Your task to perform on an android device: open the mobile data screen to see how much data has been used Image 0: 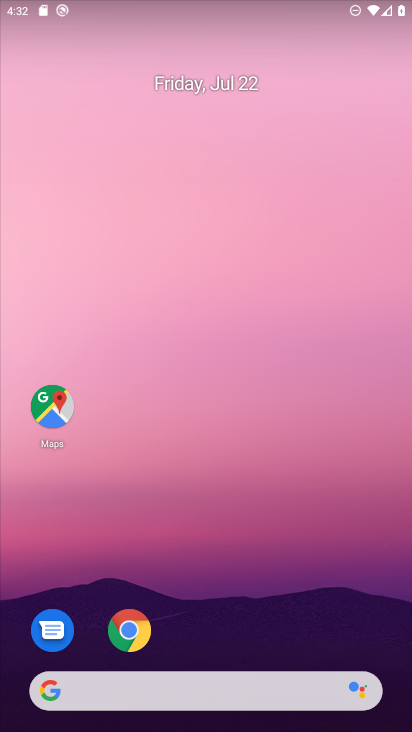
Step 0: drag from (231, 657) to (245, 202)
Your task to perform on an android device: open the mobile data screen to see how much data has been used Image 1: 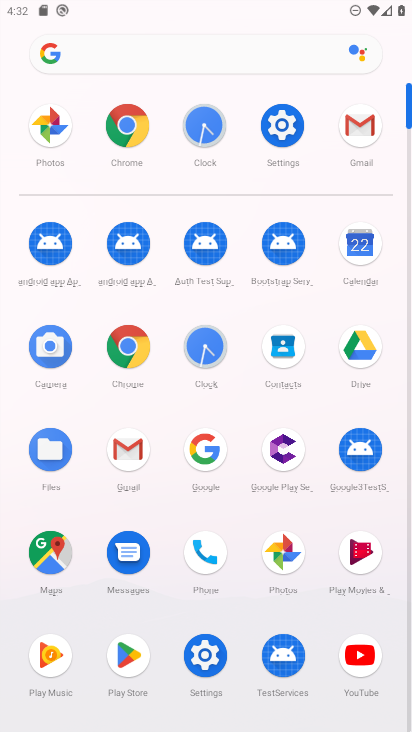
Step 1: click (281, 134)
Your task to perform on an android device: open the mobile data screen to see how much data has been used Image 2: 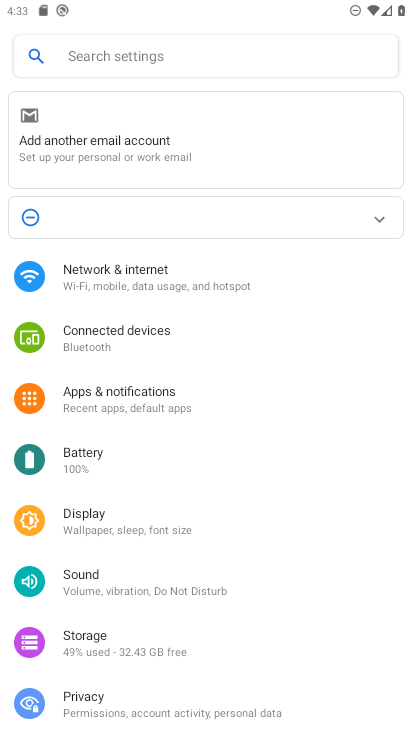
Step 2: click (167, 277)
Your task to perform on an android device: open the mobile data screen to see how much data has been used Image 3: 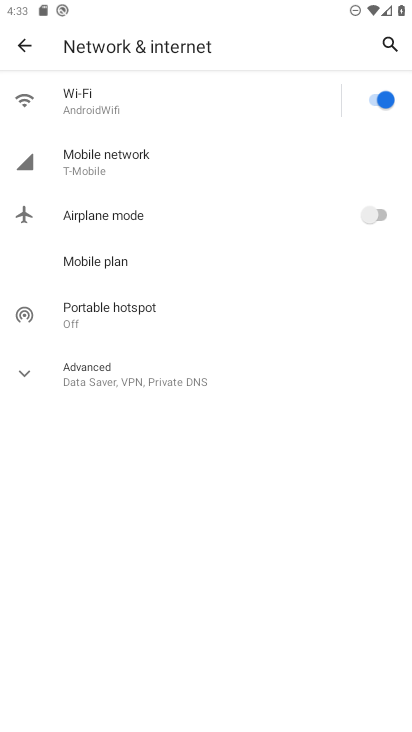
Step 3: click (114, 163)
Your task to perform on an android device: open the mobile data screen to see how much data has been used Image 4: 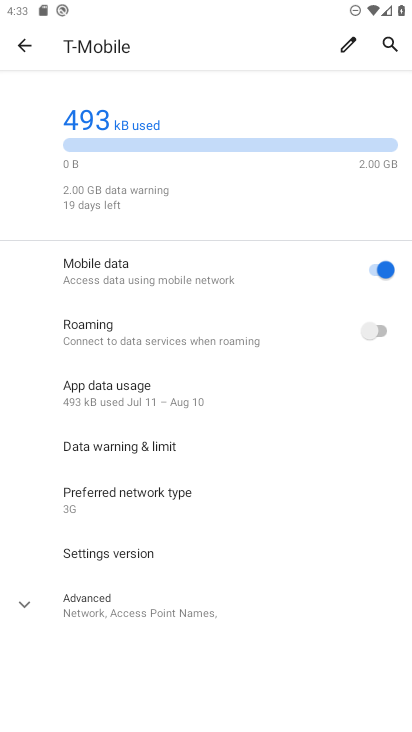
Step 4: click (174, 398)
Your task to perform on an android device: open the mobile data screen to see how much data has been used Image 5: 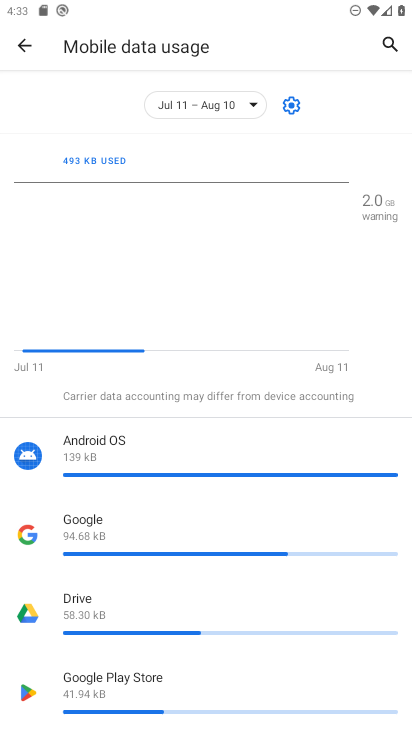
Step 5: task complete